Your task to perform on an android device: change keyboard looks Image 0: 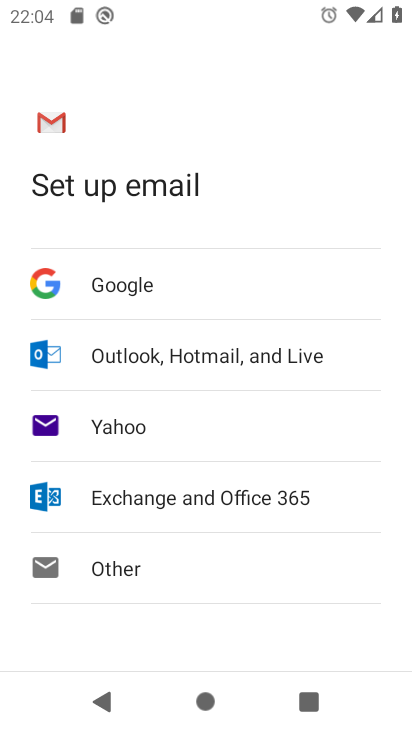
Step 0: press home button
Your task to perform on an android device: change keyboard looks Image 1: 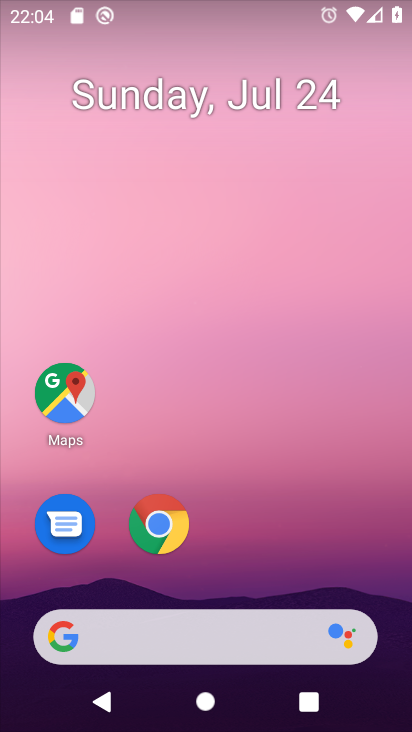
Step 1: drag from (268, 539) to (230, 83)
Your task to perform on an android device: change keyboard looks Image 2: 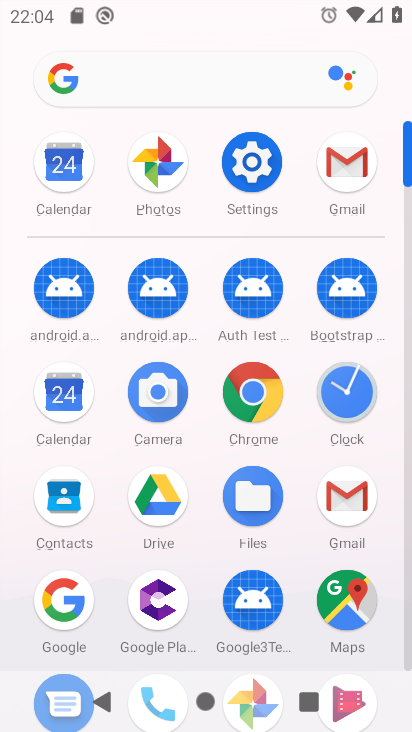
Step 2: click (265, 161)
Your task to perform on an android device: change keyboard looks Image 3: 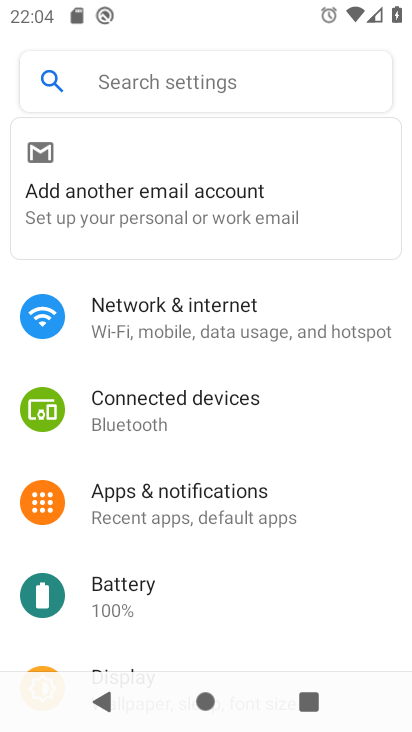
Step 3: drag from (204, 595) to (267, 118)
Your task to perform on an android device: change keyboard looks Image 4: 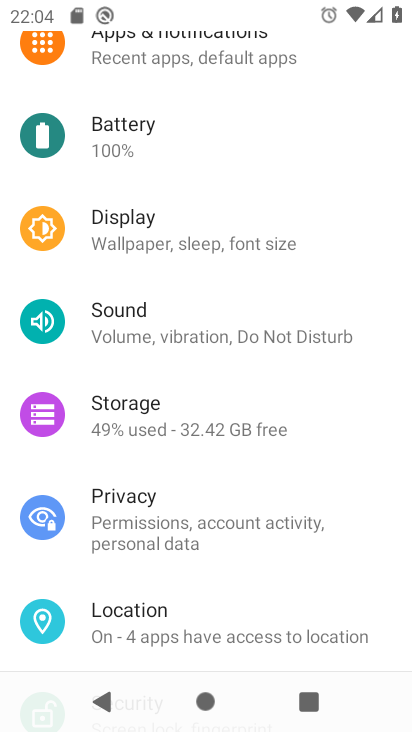
Step 4: drag from (259, 576) to (273, 60)
Your task to perform on an android device: change keyboard looks Image 5: 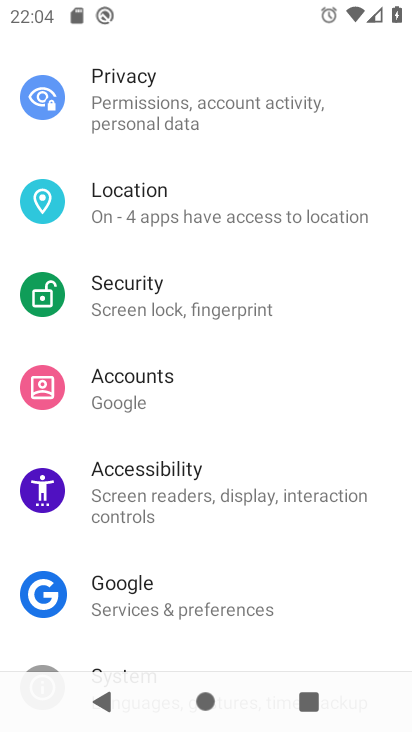
Step 5: drag from (220, 531) to (245, 220)
Your task to perform on an android device: change keyboard looks Image 6: 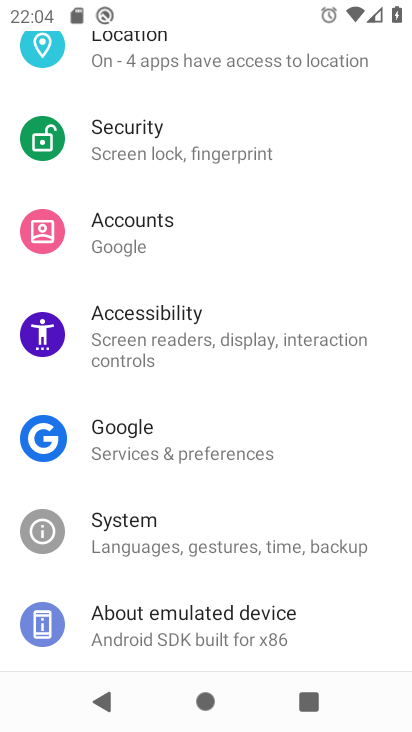
Step 6: click (222, 534)
Your task to perform on an android device: change keyboard looks Image 7: 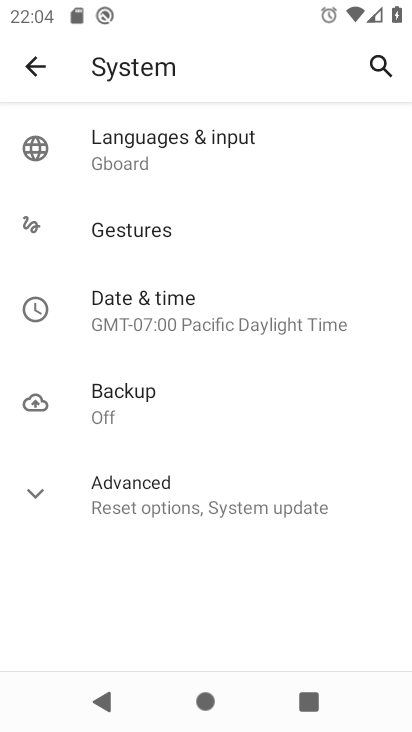
Step 7: click (201, 142)
Your task to perform on an android device: change keyboard looks Image 8: 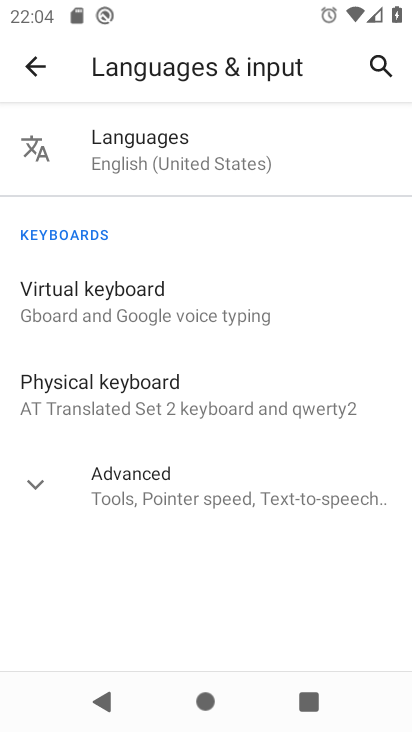
Step 8: click (146, 296)
Your task to perform on an android device: change keyboard looks Image 9: 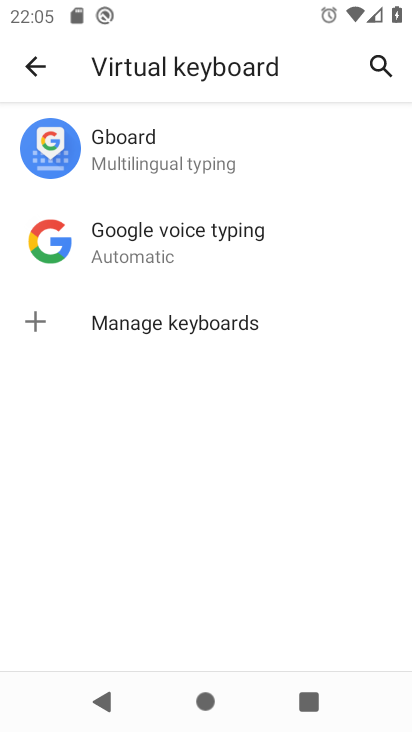
Step 9: click (157, 160)
Your task to perform on an android device: change keyboard looks Image 10: 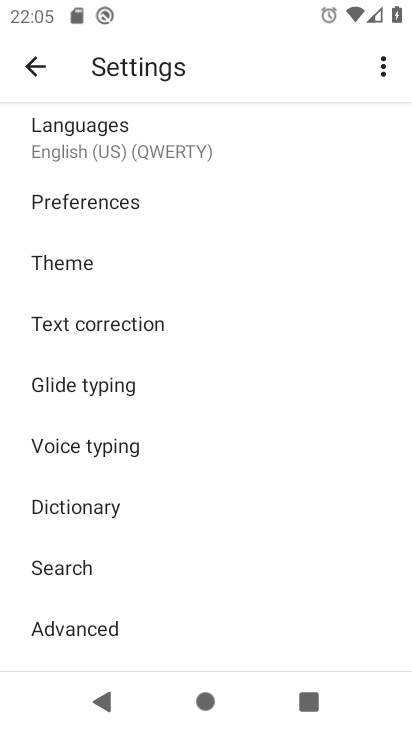
Step 10: click (60, 262)
Your task to perform on an android device: change keyboard looks Image 11: 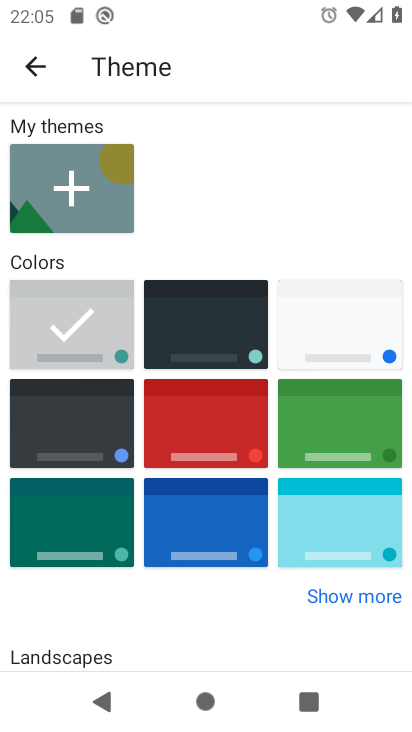
Step 11: click (304, 413)
Your task to perform on an android device: change keyboard looks Image 12: 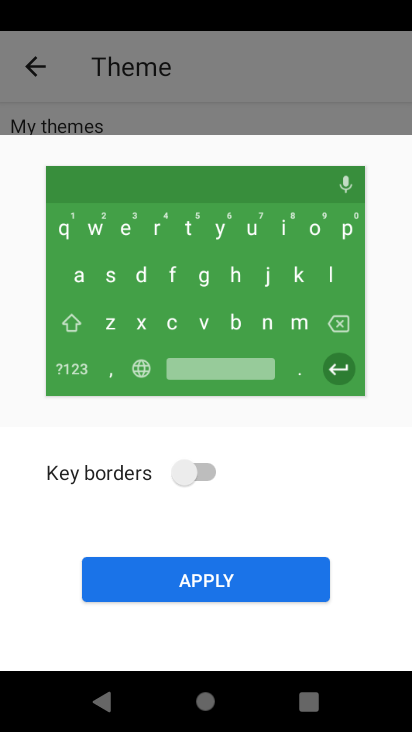
Step 12: click (203, 467)
Your task to perform on an android device: change keyboard looks Image 13: 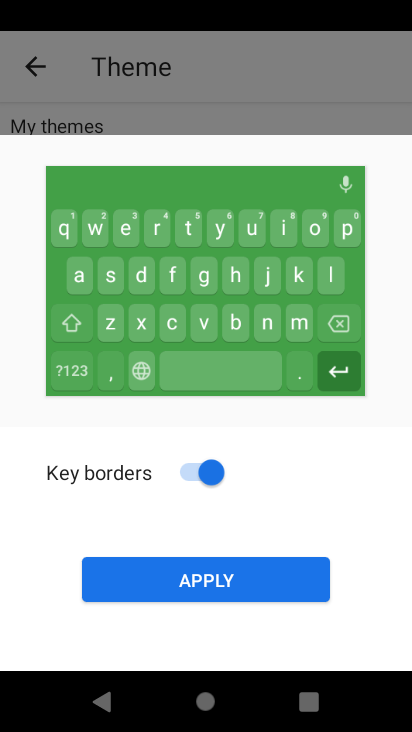
Step 13: click (216, 584)
Your task to perform on an android device: change keyboard looks Image 14: 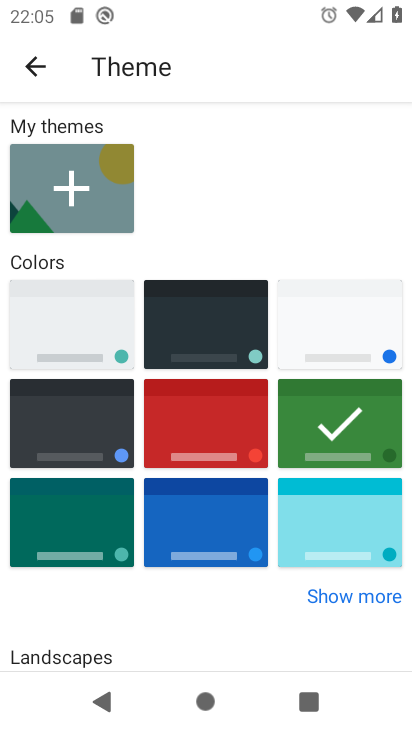
Step 14: task complete